Your task to perform on an android device: Search for seafood restaurants on Google Maps Image 0: 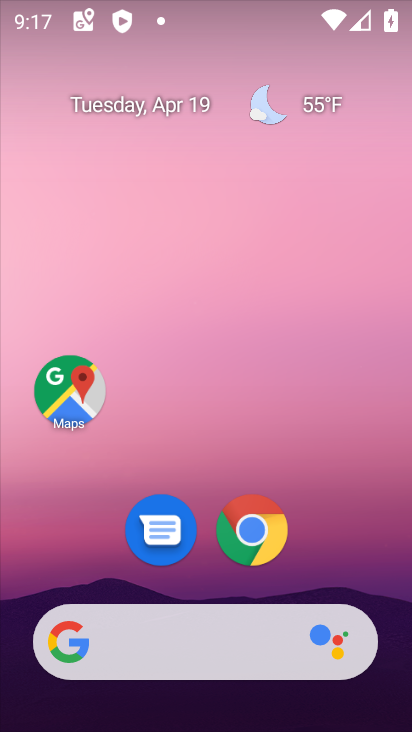
Step 0: click (68, 394)
Your task to perform on an android device: Search for seafood restaurants on Google Maps Image 1: 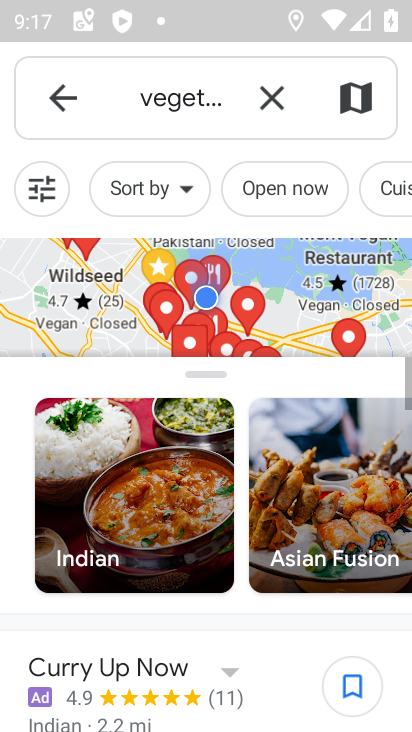
Step 1: click (273, 107)
Your task to perform on an android device: Search for seafood restaurants on Google Maps Image 2: 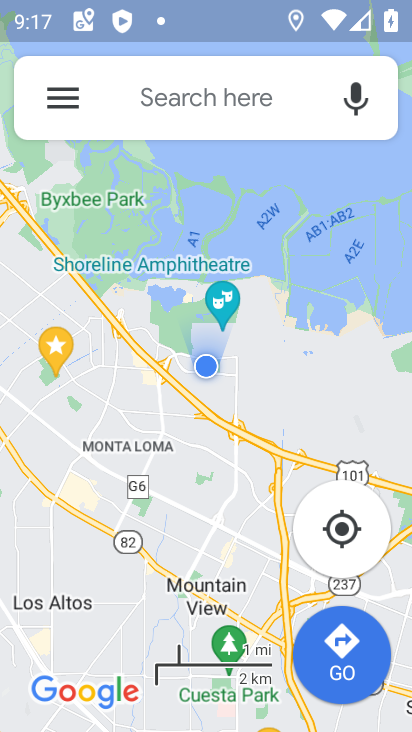
Step 2: click (165, 97)
Your task to perform on an android device: Search for seafood restaurants on Google Maps Image 3: 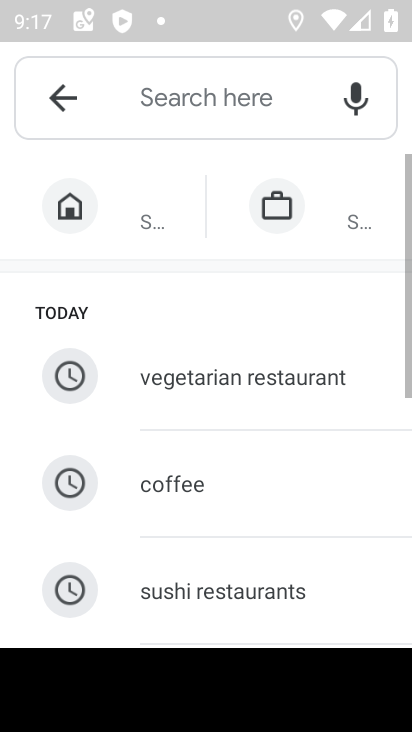
Step 3: drag from (216, 550) to (198, 294)
Your task to perform on an android device: Search for seafood restaurants on Google Maps Image 4: 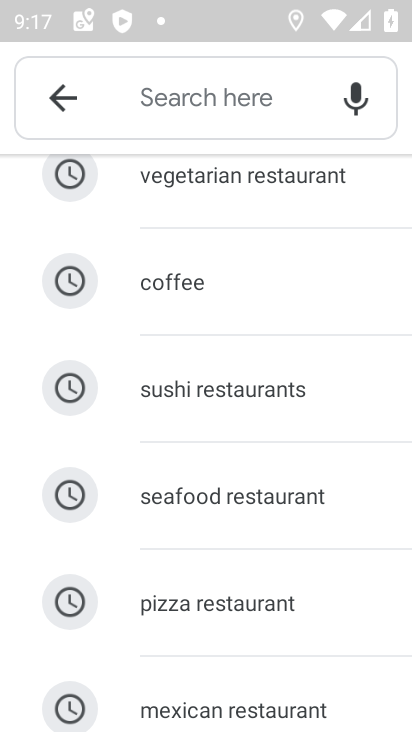
Step 4: click (203, 502)
Your task to perform on an android device: Search for seafood restaurants on Google Maps Image 5: 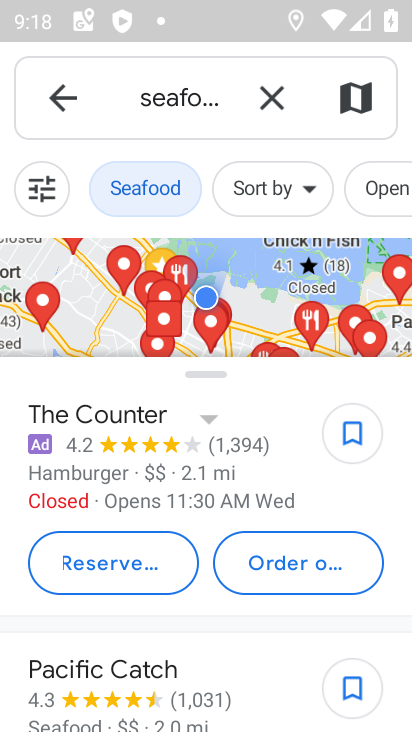
Step 5: task complete